Your task to perform on an android device: manage bookmarks in the chrome app Image 0: 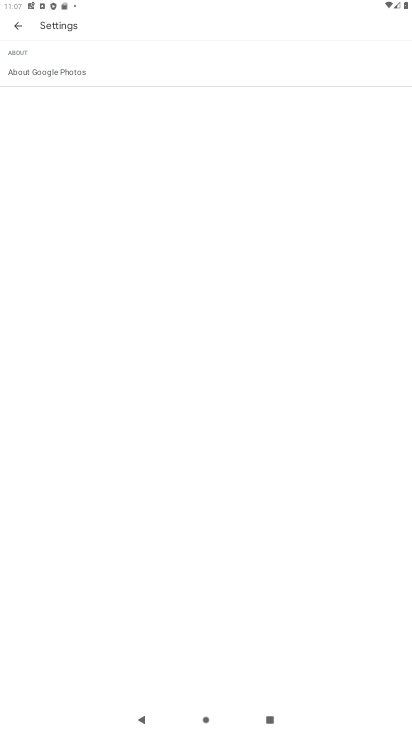
Step 0: press home button
Your task to perform on an android device: manage bookmarks in the chrome app Image 1: 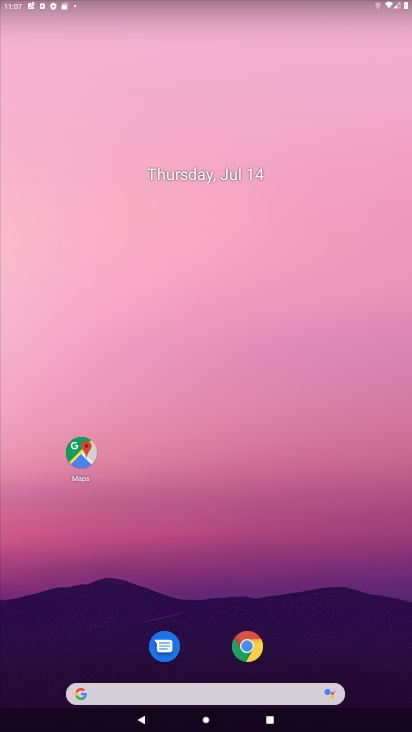
Step 1: click (250, 647)
Your task to perform on an android device: manage bookmarks in the chrome app Image 2: 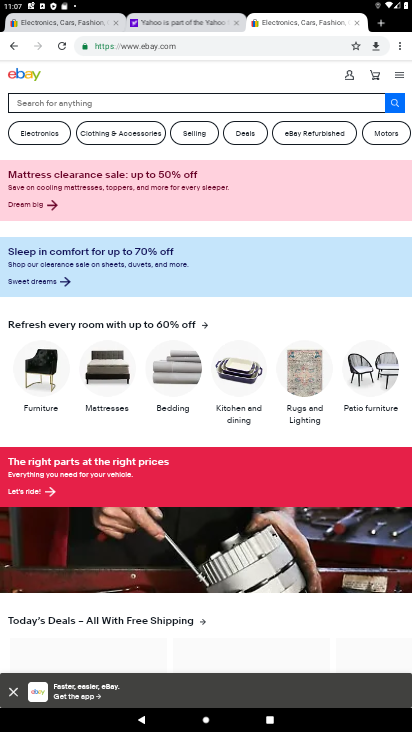
Step 2: click (396, 47)
Your task to perform on an android device: manage bookmarks in the chrome app Image 3: 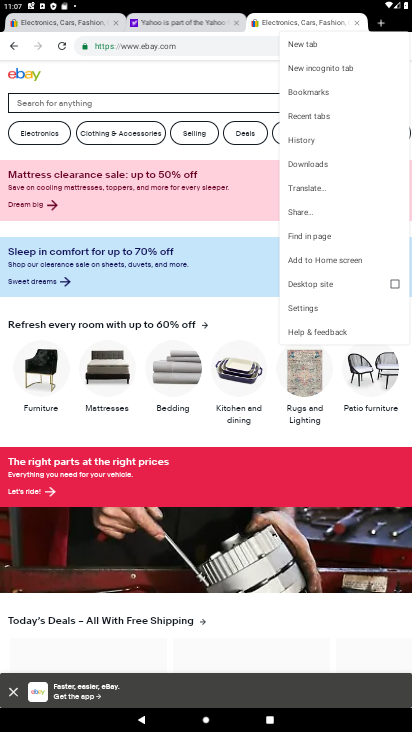
Step 3: click (321, 97)
Your task to perform on an android device: manage bookmarks in the chrome app Image 4: 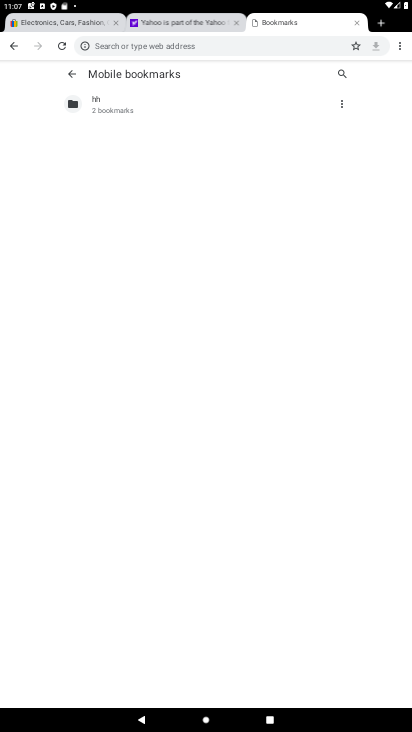
Step 4: click (137, 114)
Your task to perform on an android device: manage bookmarks in the chrome app Image 5: 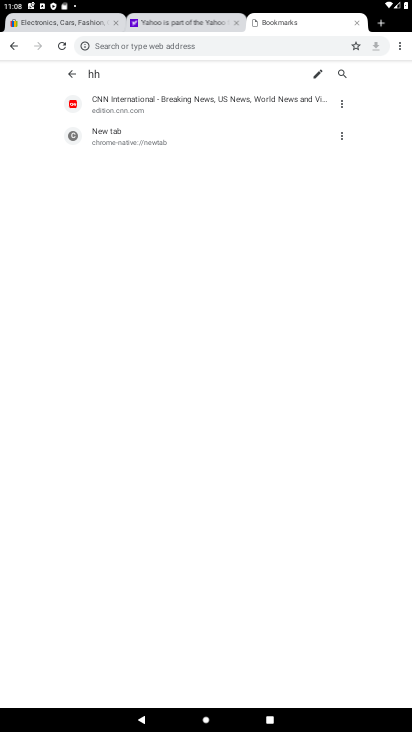
Step 5: click (347, 142)
Your task to perform on an android device: manage bookmarks in the chrome app Image 6: 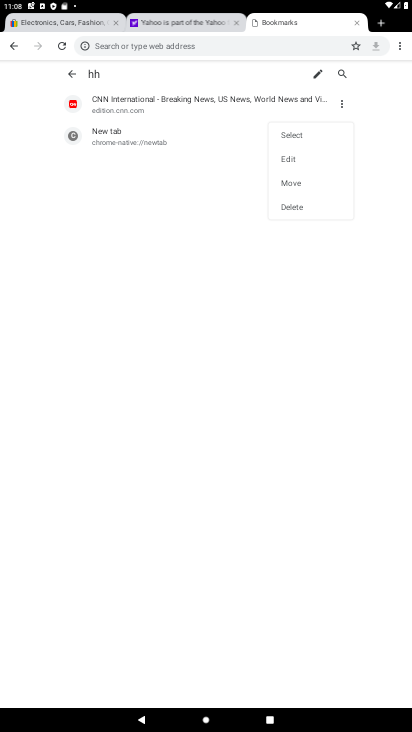
Step 6: click (285, 207)
Your task to perform on an android device: manage bookmarks in the chrome app Image 7: 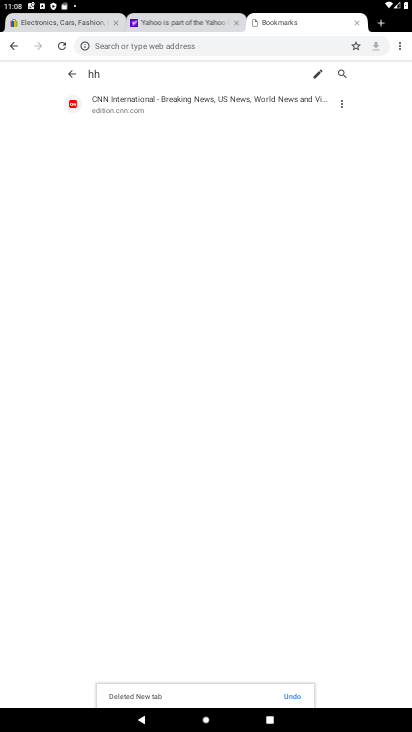
Step 7: task complete